Your task to perform on an android device: toggle pop-ups in chrome Image 0: 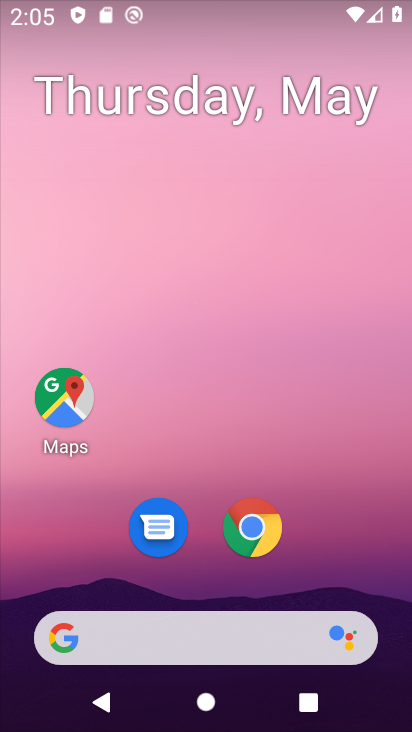
Step 0: click (275, 526)
Your task to perform on an android device: toggle pop-ups in chrome Image 1: 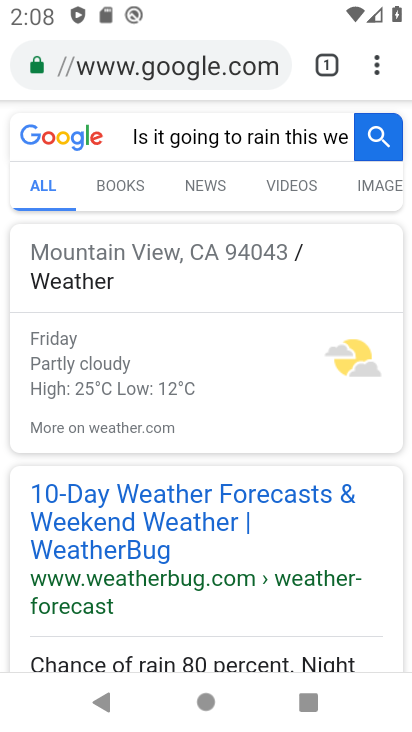
Step 1: drag from (378, 52) to (136, 591)
Your task to perform on an android device: toggle pop-ups in chrome Image 2: 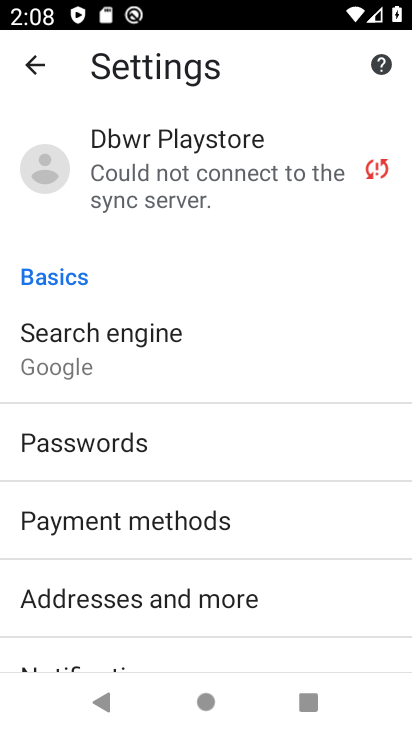
Step 2: drag from (145, 583) to (202, 173)
Your task to perform on an android device: toggle pop-ups in chrome Image 3: 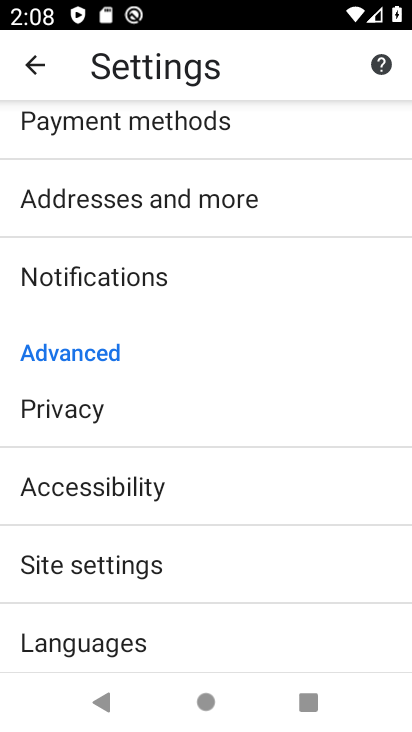
Step 3: drag from (187, 602) to (234, 217)
Your task to perform on an android device: toggle pop-ups in chrome Image 4: 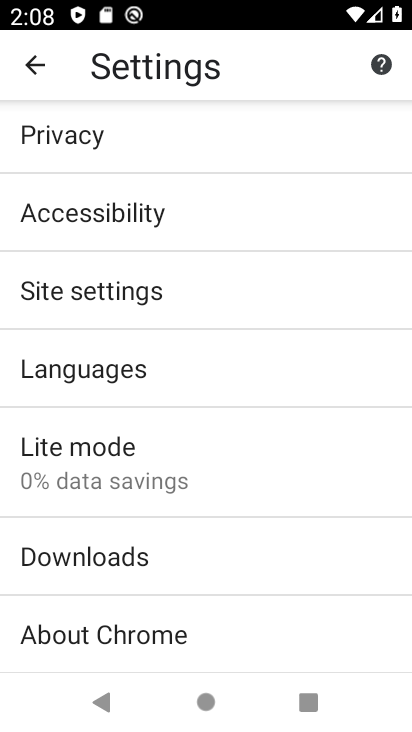
Step 4: click (114, 301)
Your task to perform on an android device: toggle pop-ups in chrome Image 5: 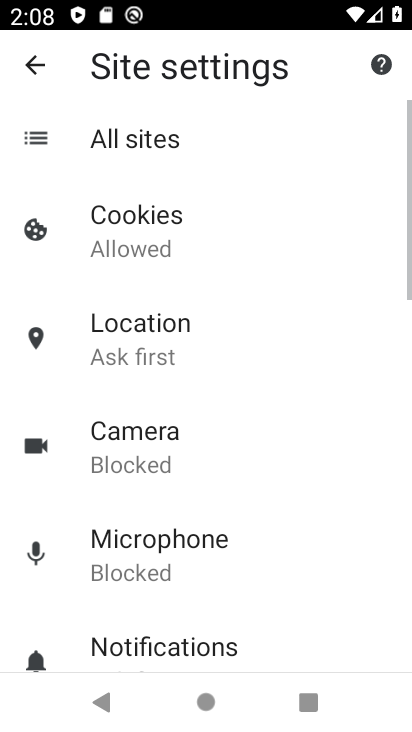
Step 5: drag from (158, 582) to (239, 199)
Your task to perform on an android device: toggle pop-ups in chrome Image 6: 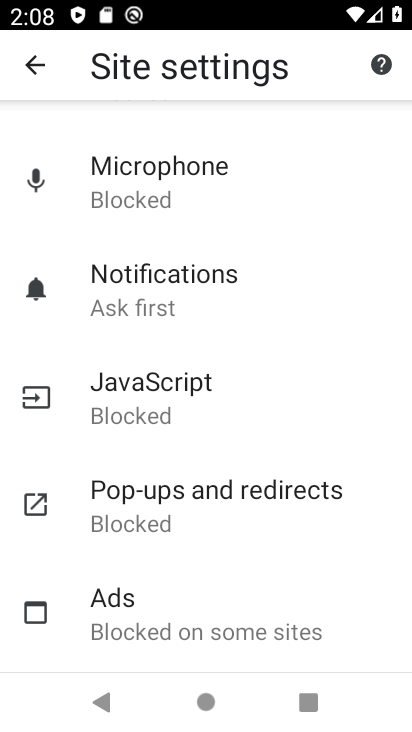
Step 6: click (207, 498)
Your task to perform on an android device: toggle pop-ups in chrome Image 7: 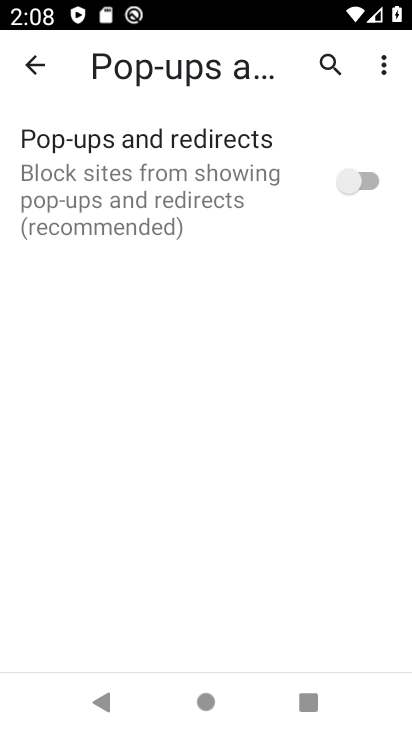
Step 7: click (272, 222)
Your task to perform on an android device: toggle pop-ups in chrome Image 8: 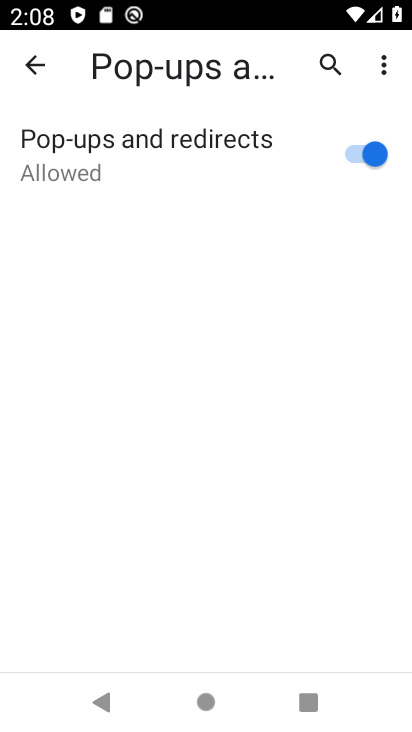
Step 8: task complete